Your task to perform on an android device: open app "DoorDash - Food Delivery" (install if not already installed) Image 0: 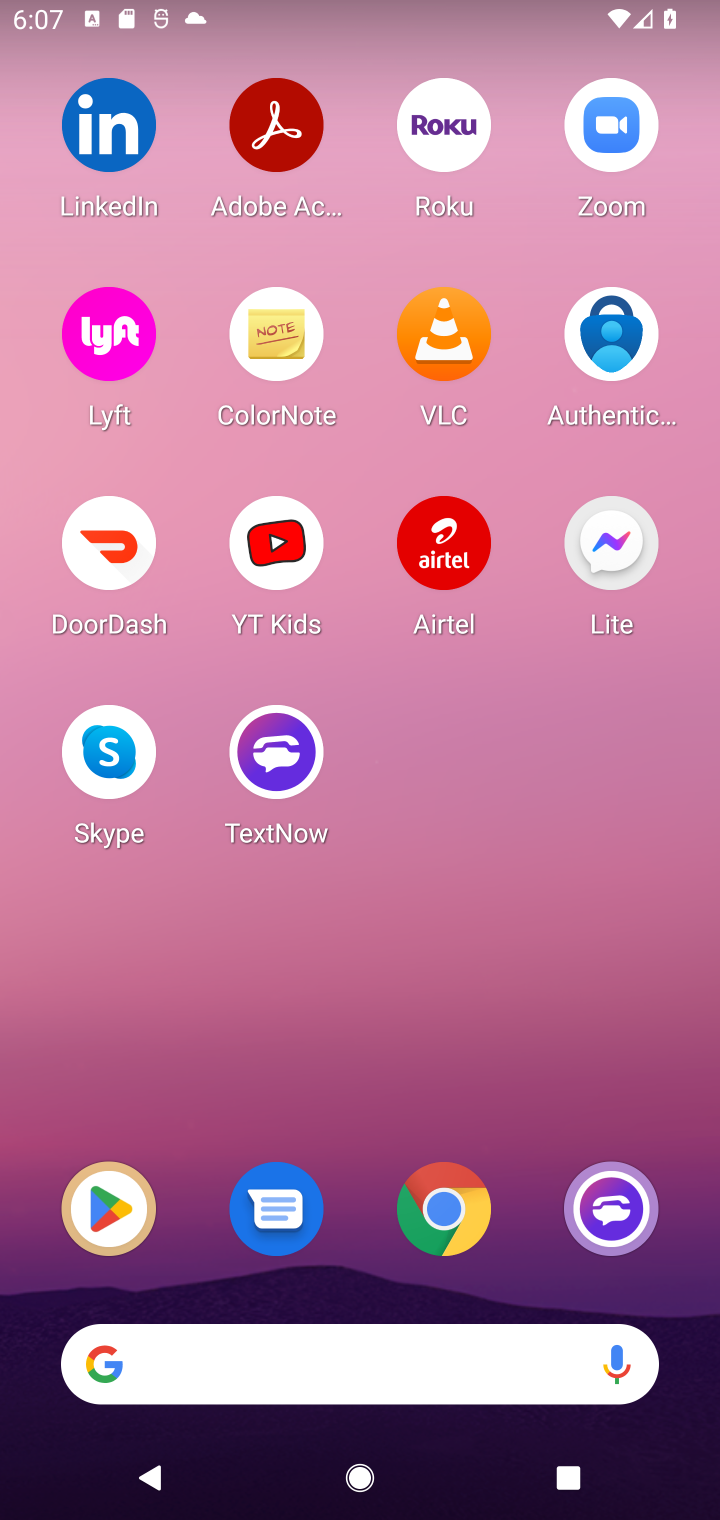
Step 0: click (107, 573)
Your task to perform on an android device: open app "DoorDash - Food Delivery" (install if not already installed) Image 1: 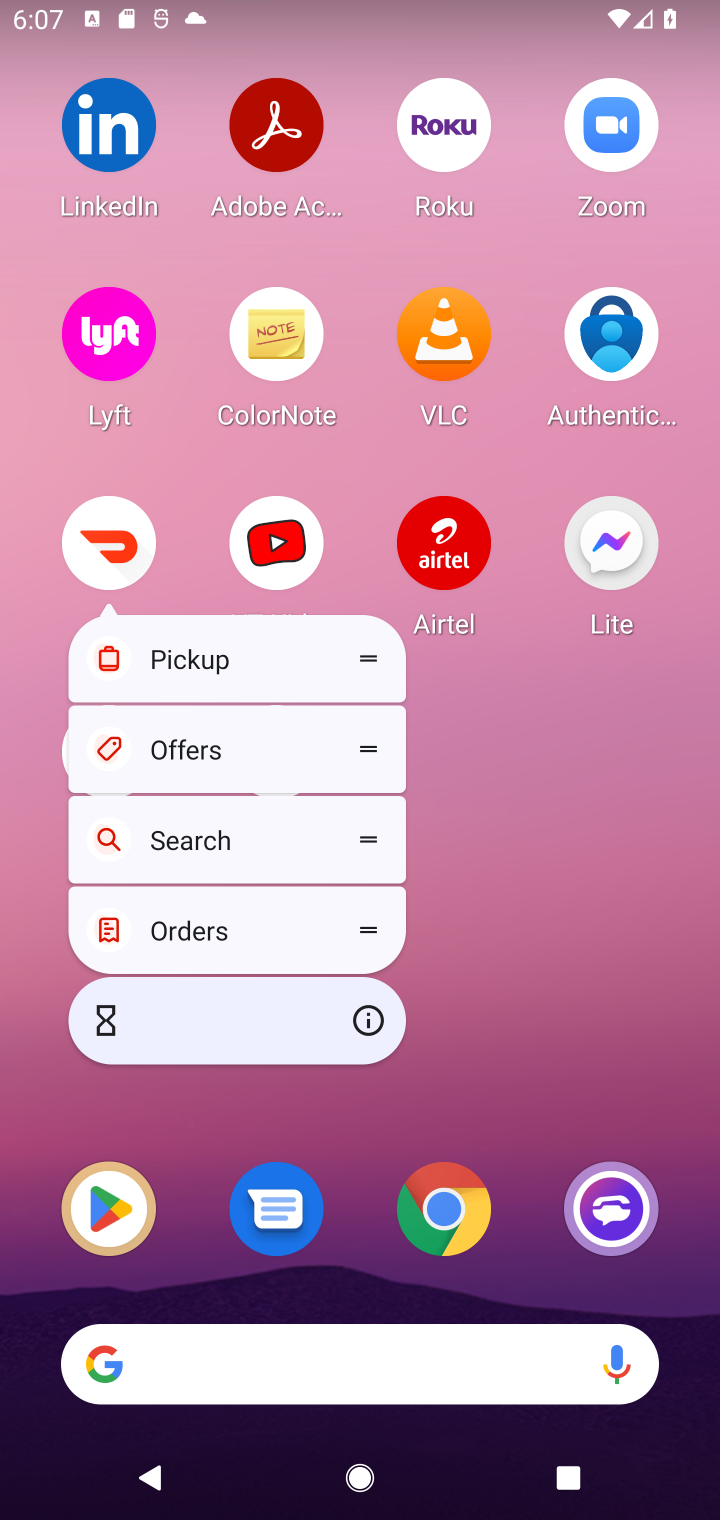
Step 1: click (107, 545)
Your task to perform on an android device: open app "DoorDash - Food Delivery" (install if not already installed) Image 2: 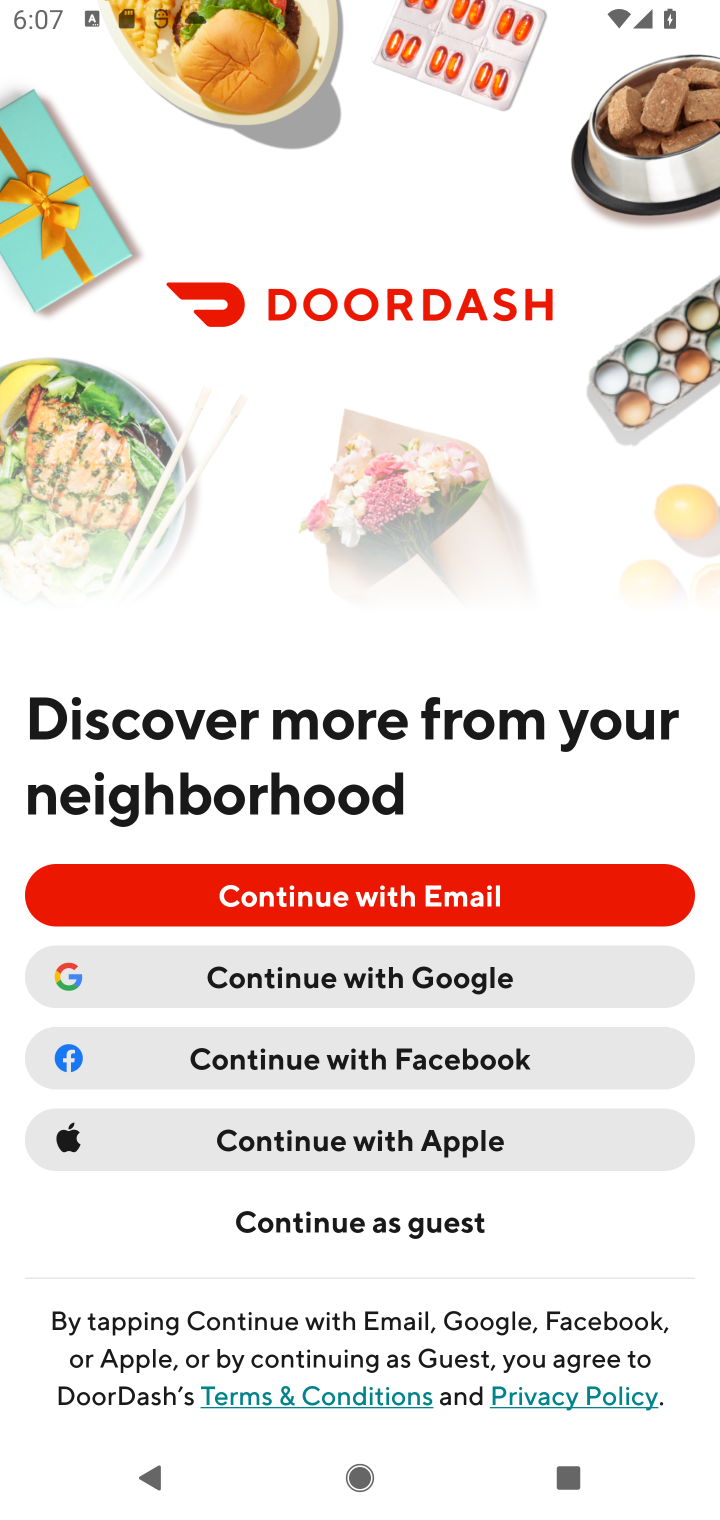
Step 2: task complete